Your task to perform on an android device: Go to Yahoo.com Image 0: 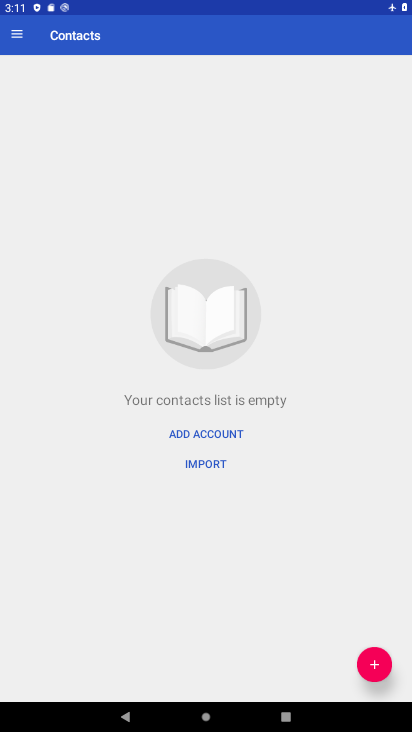
Step 0: press home button
Your task to perform on an android device: Go to Yahoo.com Image 1: 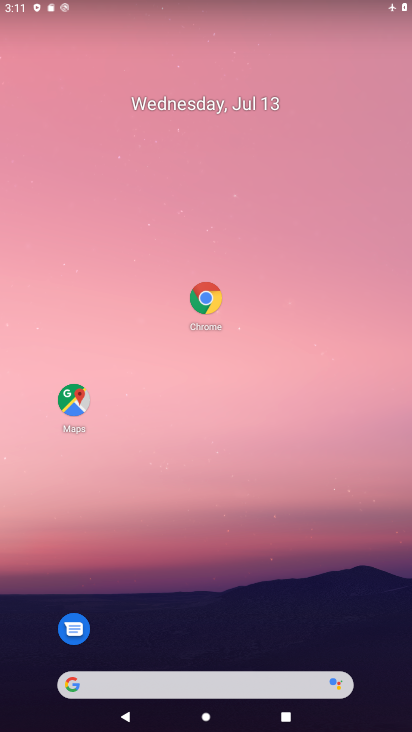
Step 1: click (209, 306)
Your task to perform on an android device: Go to Yahoo.com Image 2: 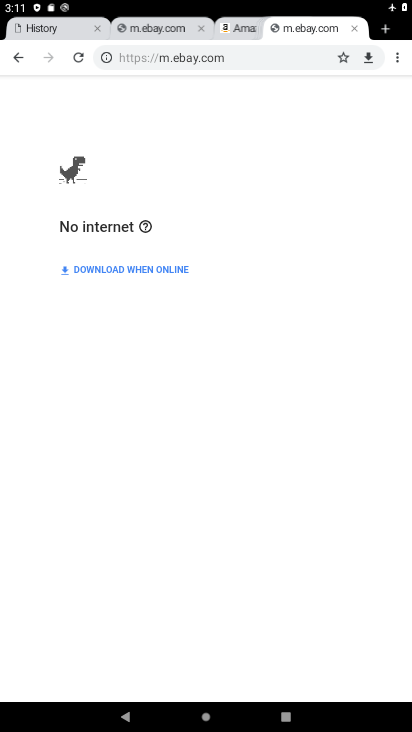
Step 2: click (388, 29)
Your task to perform on an android device: Go to Yahoo.com Image 3: 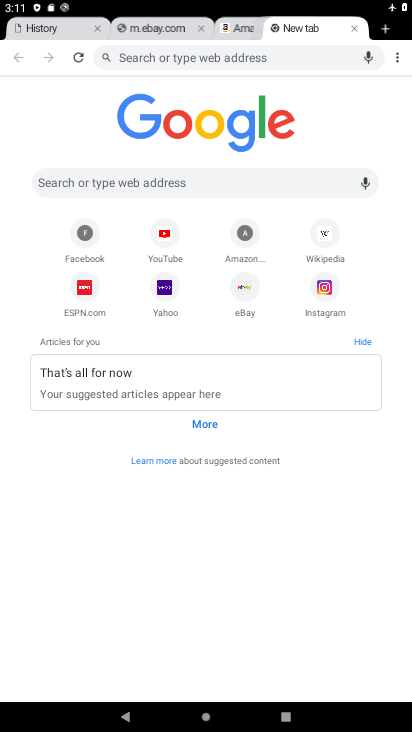
Step 3: click (157, 295)
Your task to perform on an android device: Go to Yahoo.com Image 4: 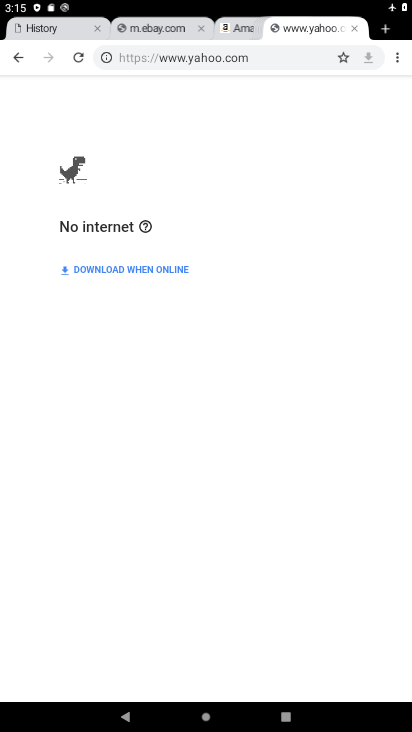
Step 4: task complete